Your task to perform on an android device: turn off notifications settings in the gmail app Image 0: 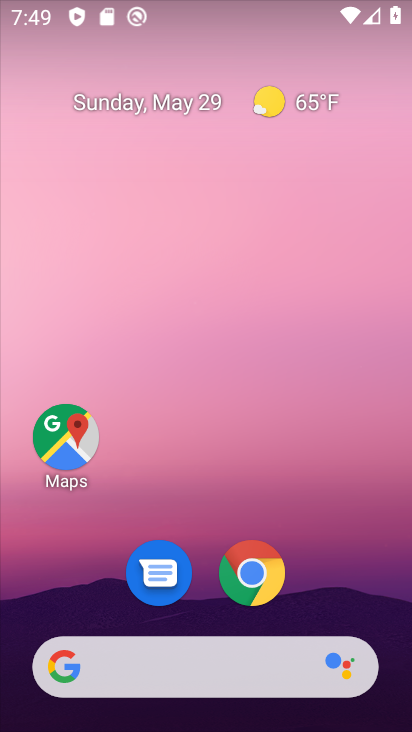
Step 0: drag from (207, 616) to (216, 184)
Your task to perform on an android device: turn off notifications settings in the gmail app Image 1: 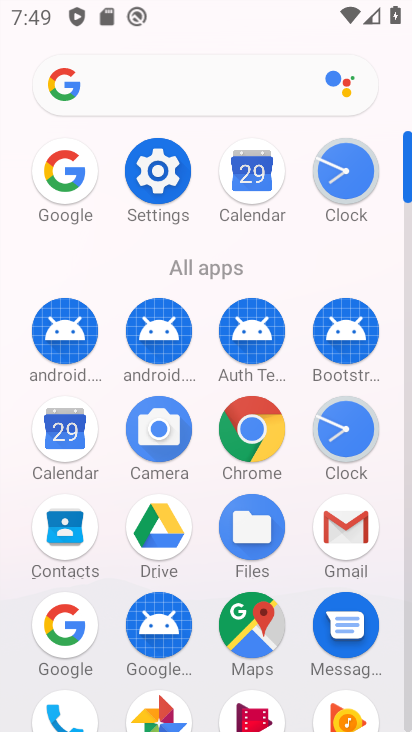
Step 1: click (348, 539)
Your task to perform on an android device: turn off notifications settings in the gmail app Image 2: 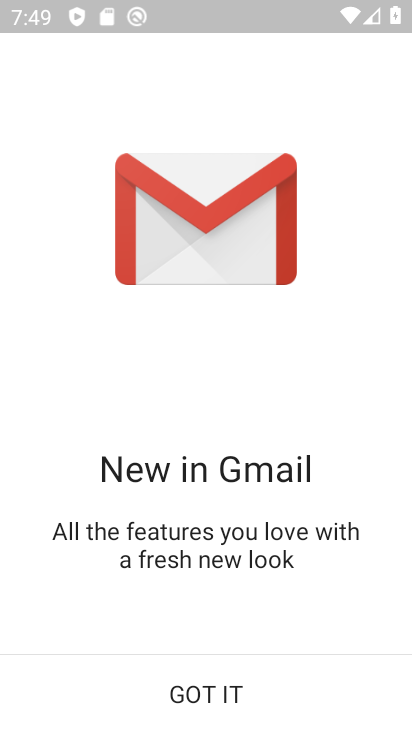
Step 2: click (207, 687)
Your task to perform on an android device: turn off notifications settings in the gmail app Image 3: 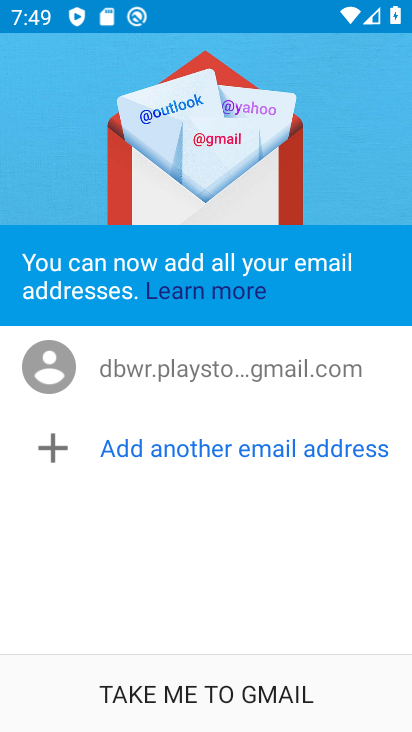
Step 3: click (210, 686)
Your task to perform on an android device: turn off notifications settings in the gmail app Image 4: 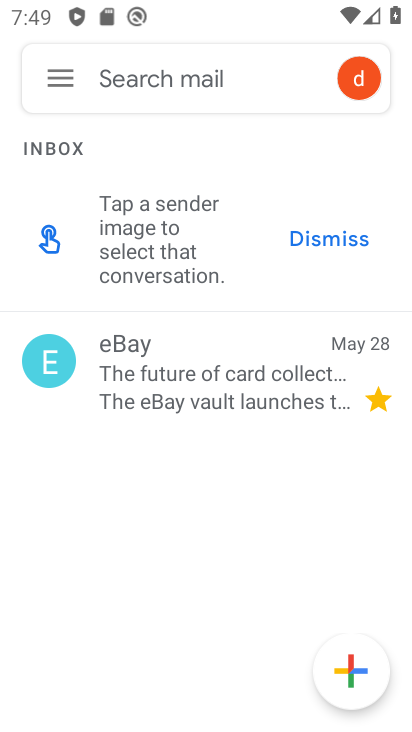
Step 4: click (50, 73)
Your task to perform on an android device: turn off notifications settings in the gmail app Image 5: 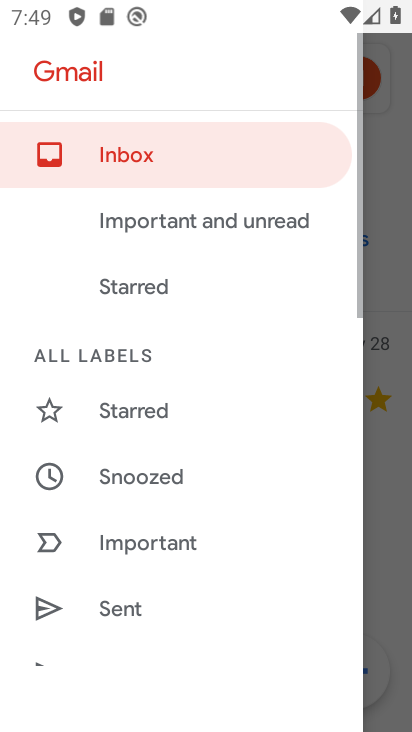
Step 5: drag from (136, 636) to (172, 259)
Your task to perform on an android device: turn off notifications settings in the gmail app Image 6: 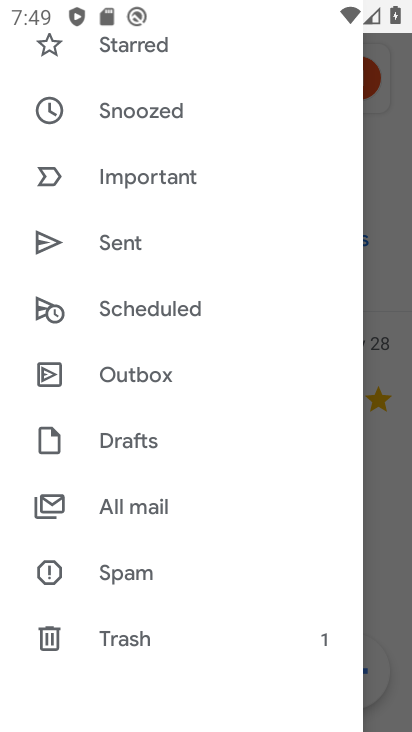
Step 6: drag from (166, 624) to (191, 301)
Your task to perform on an android device: turn off notifications settings in the gmail app Image 7: 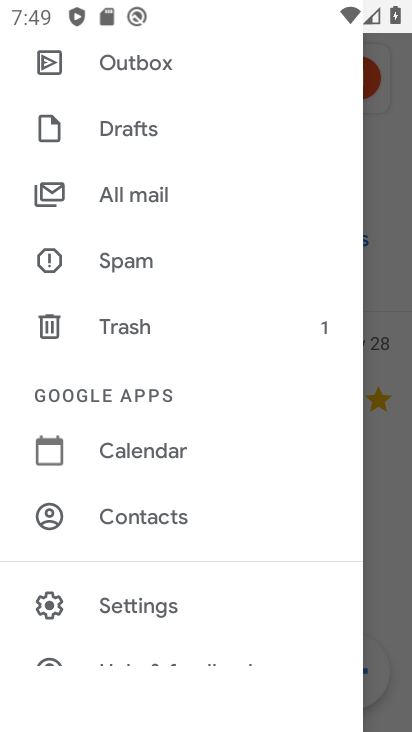
Step 7: click (193, 594)
Your task to perform on an android device: turn off notifications settings in the gmail app Image 8: 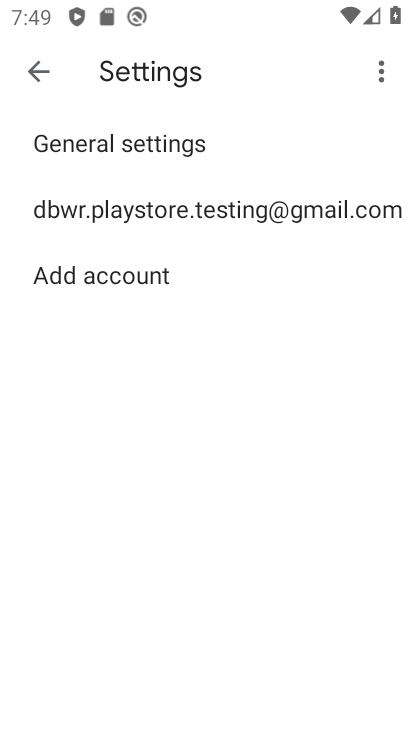
Step 8: click (149, 212)
Your task to perform on an android device: turn off notifications settings in the gmail app Image 9: 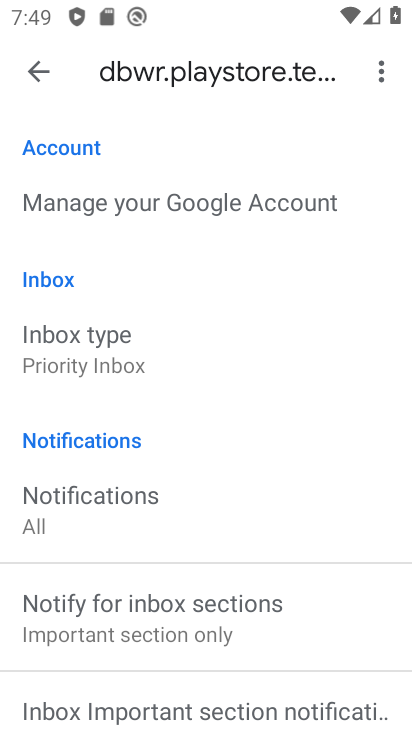
Step 9: drag from (213, 610) to (204, 401)
Your task to perform on an android device: turn off notifications settings in the gmail app Image 10: 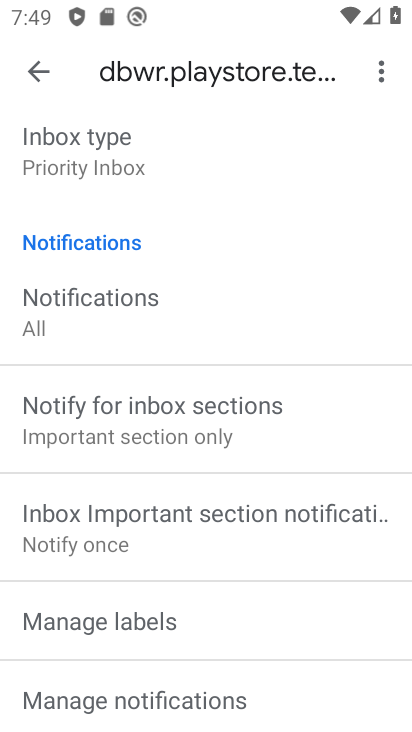
Step 10: click (215, 699)
Your task to perform on an android device: turn off notifications settings in the gmail app Image 11: 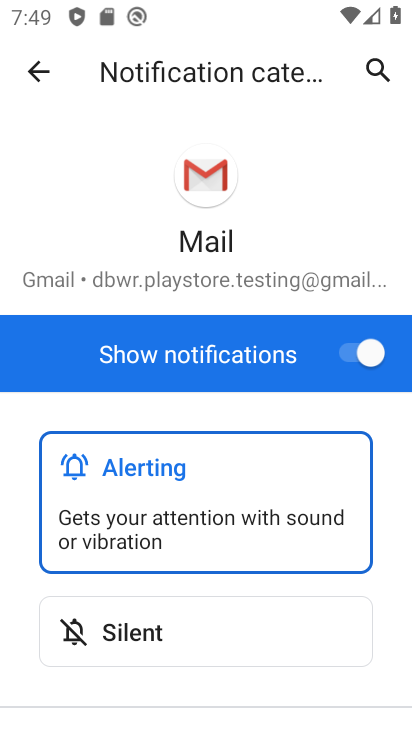
Step 11: click (354, 337)
Your task to perform on an android device: turn off notifications settings in the gmail app Image 12: 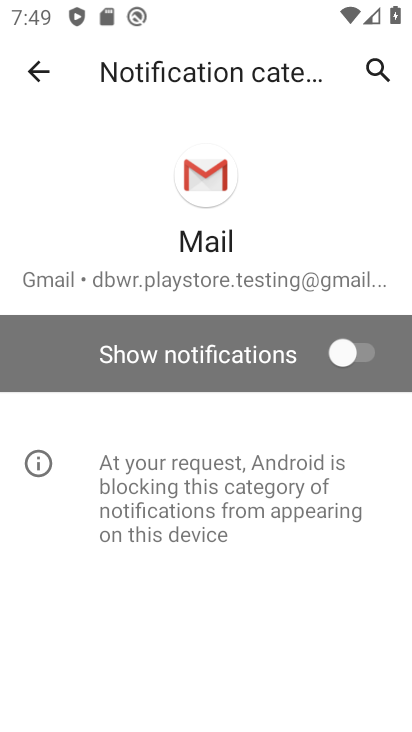
Step 12: task complete